Your task to perform on an android device: delete the emails in spam in the gmail app Image 0: 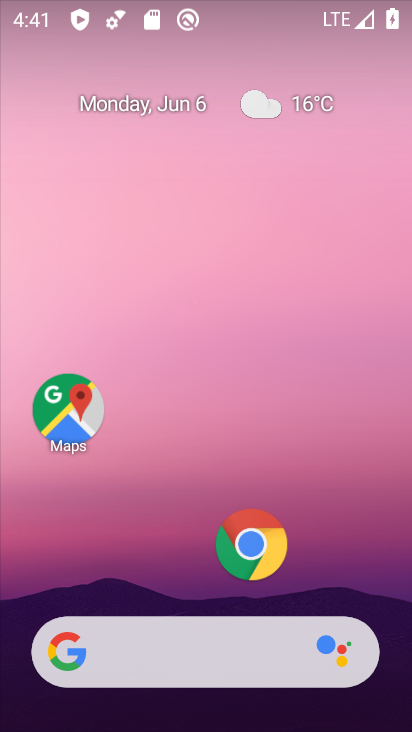
Step 0: press home button
Your task to perform on an android device: delete the emails in spam in the gmail app Image 1: 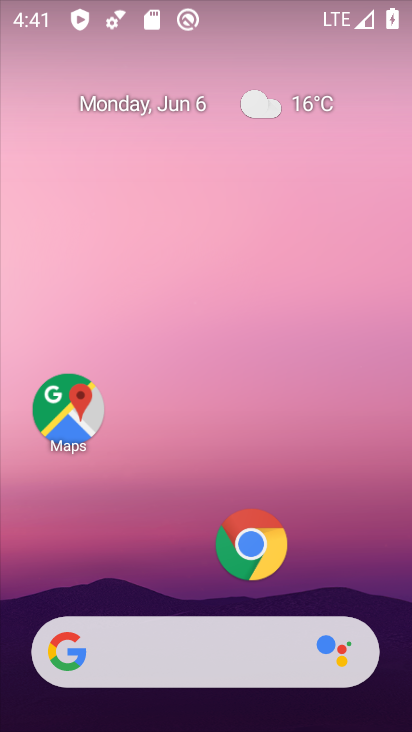
Step 1: drag from (184, 588) to (213, 131)
Your task to perform on an android device: delete the emails in spam in the gmail app Image 2: 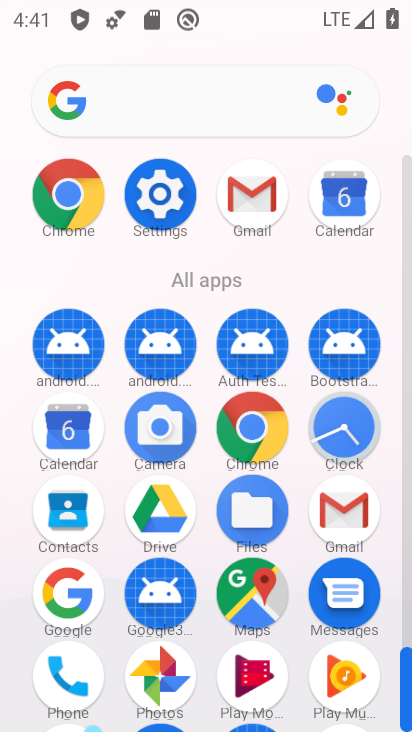
Step 2: click (339, 502)
Your task to perform on an android device: delete the emails in spam in the gmail app Image 3: 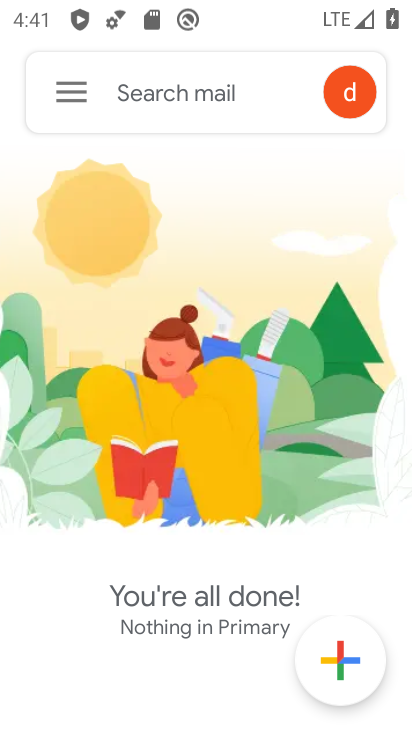
Step 3: click (68, 86)
Your task to perform on an android device: delete the emails in spam in the gmail app Image 4: 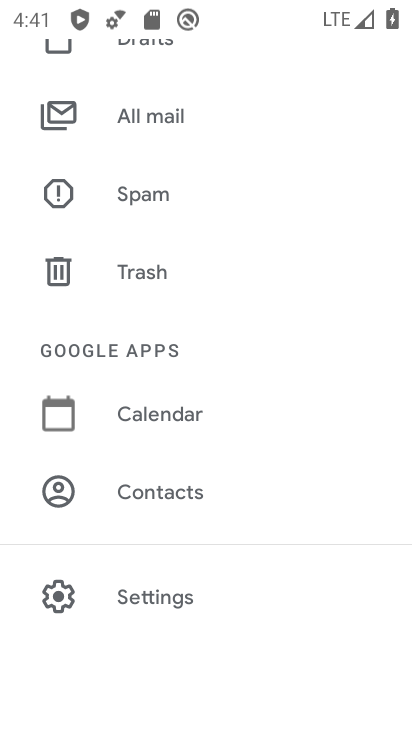
Step 4: click (173, 198)
Your task to perform on an android device: delete the emails in spam in the gmail app Image 5: 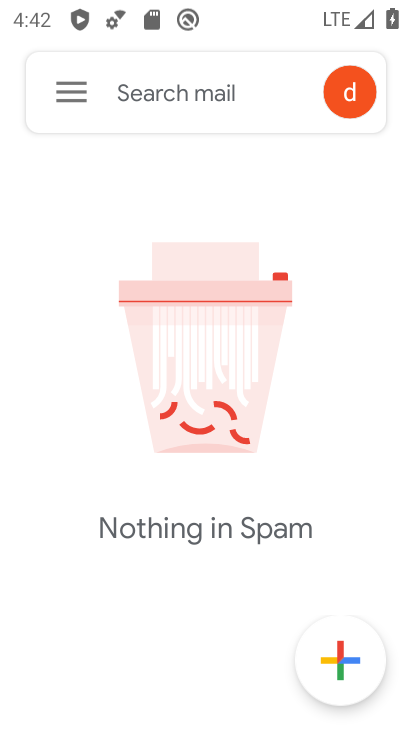
Step 5: task complete